Your task to perform on an android device: Open Reddit.com Image 0: 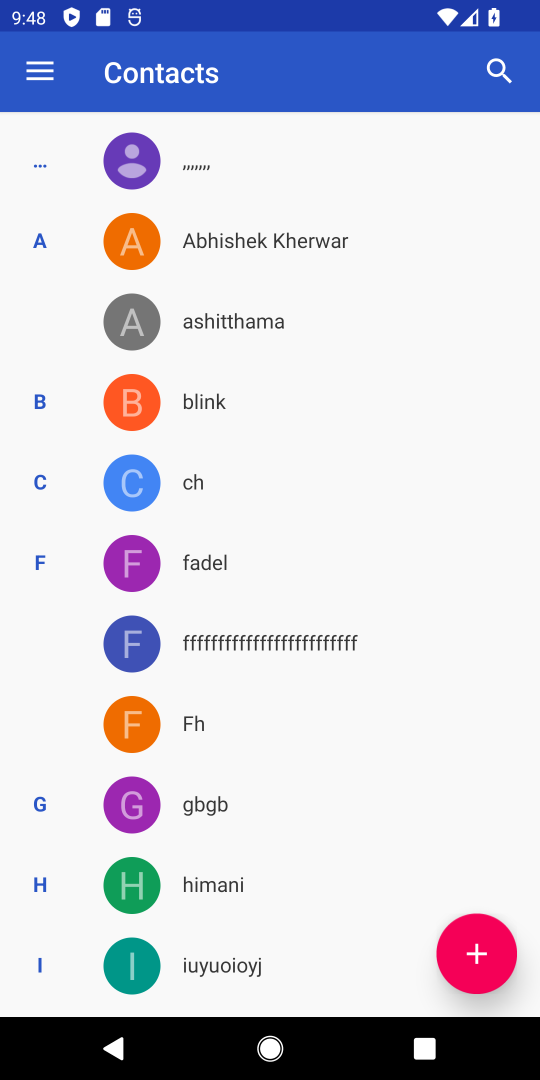
Step 0: press home button
Your task to perform on an android device: Open Reddit.com Image 1: 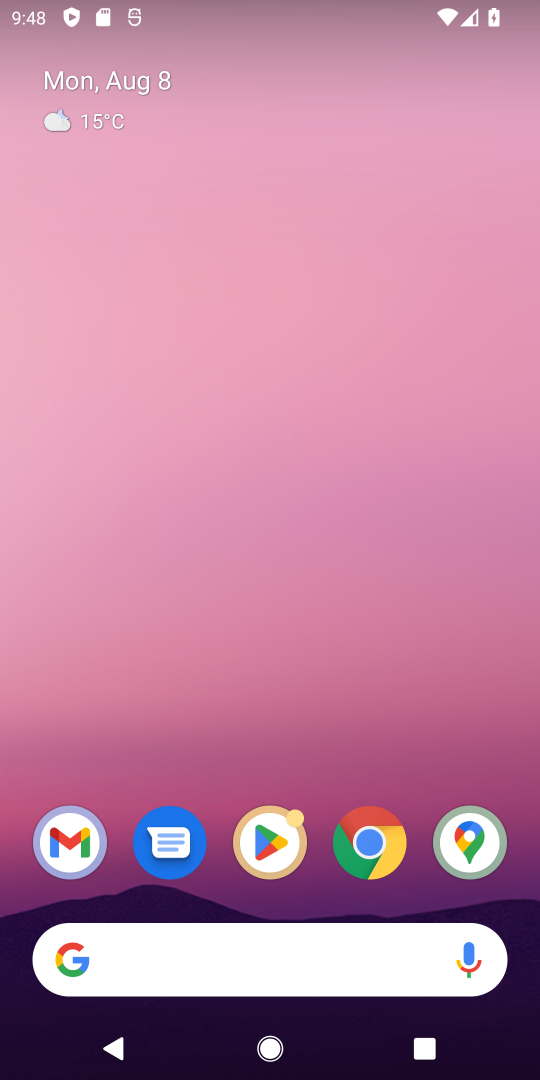
Step 1: click (399, 863)
Your task to perform on an android device: Open Reddit.com Image 2: 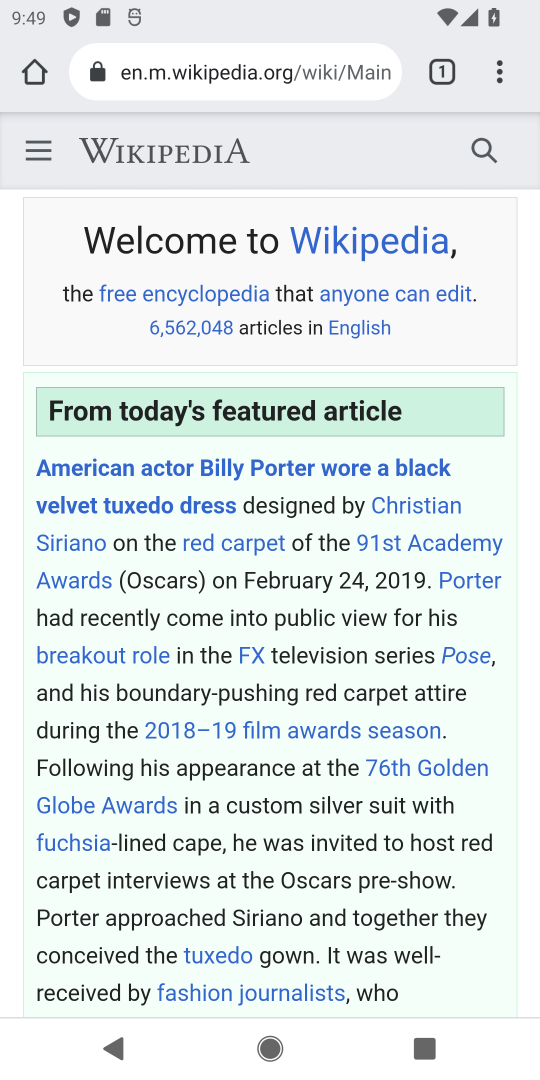
Step 2: click (377, 68)
Your task to perform on an android device: Open Reddit.com Image 3: 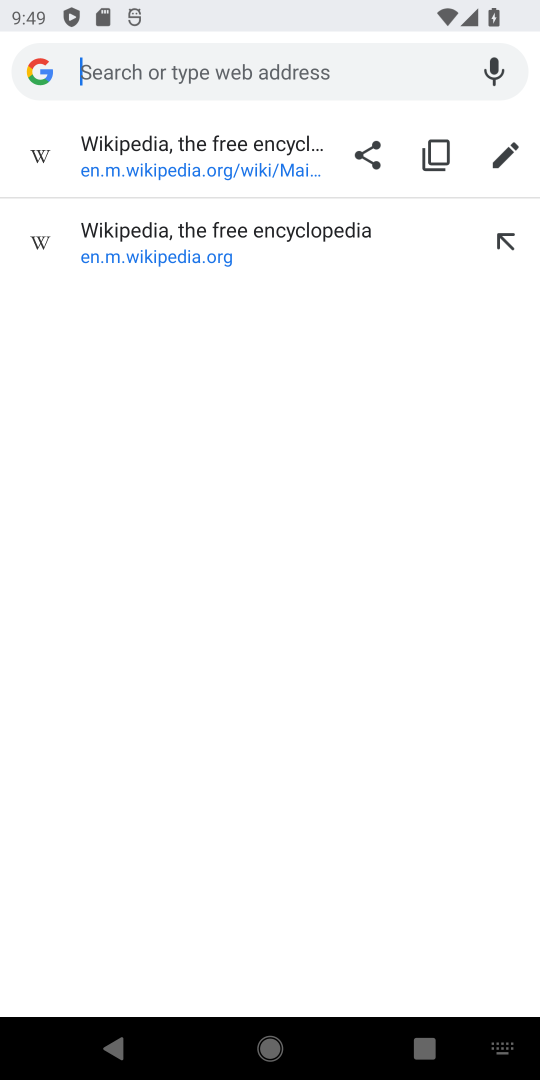
Step 3: type "reddit.com"
Your task to perform on an android device: Open Reddit.com Image 4: 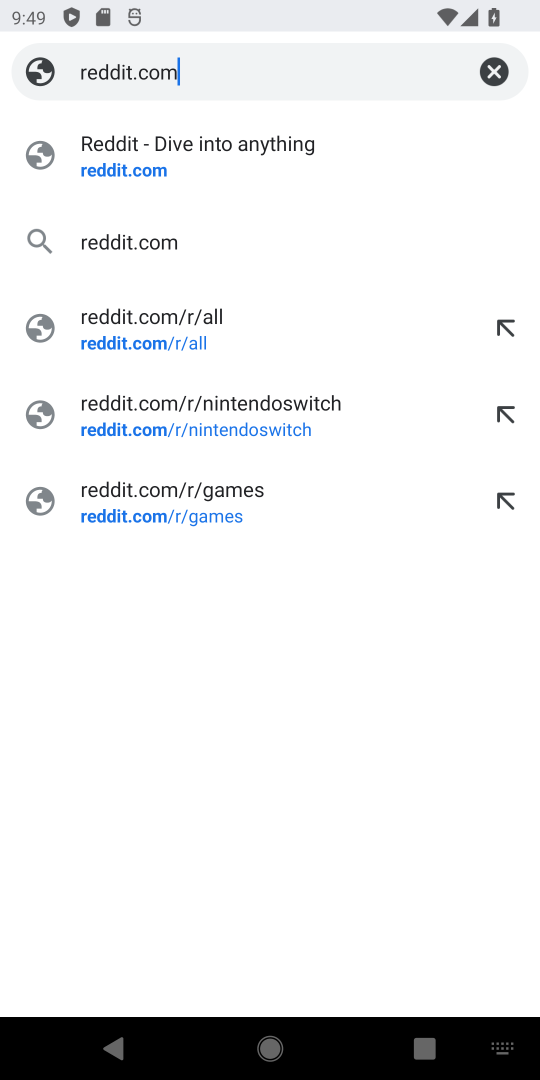
Step 4: click (226, 154)
Your task to perform on an android device: Open Reddit.com Image 5: 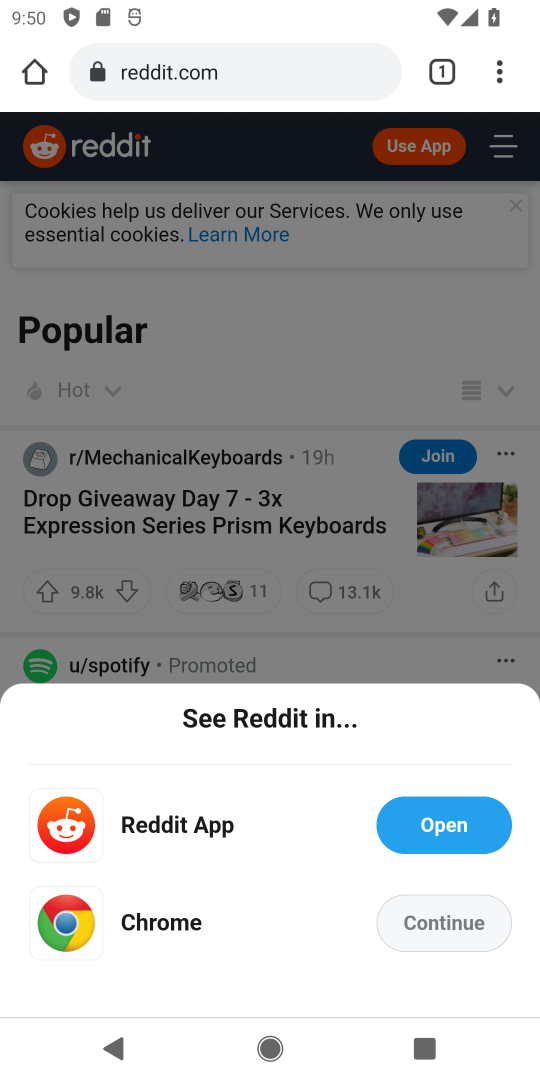
Step 5: task complete